Your task to perform on an android device: What's on my calendar today? Image 0: 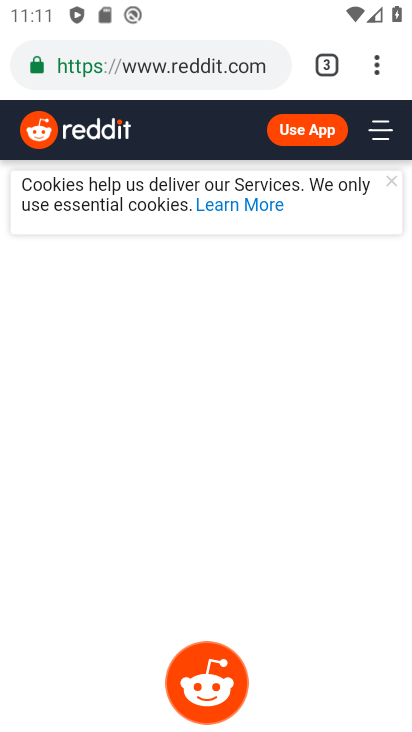
Step 0: press home button
Your task to perform on an android device: What's on my calendar today? Image 1: 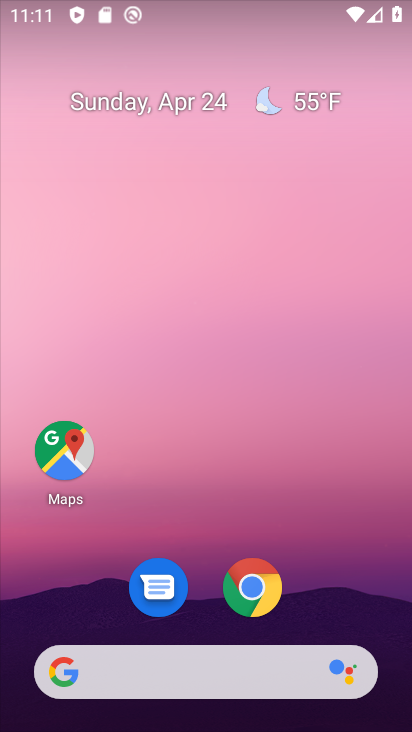
Step 1: drag from (355, 586) to (408, 58)
Your task to perform on an android device: What's on my calendar today? Image 2: 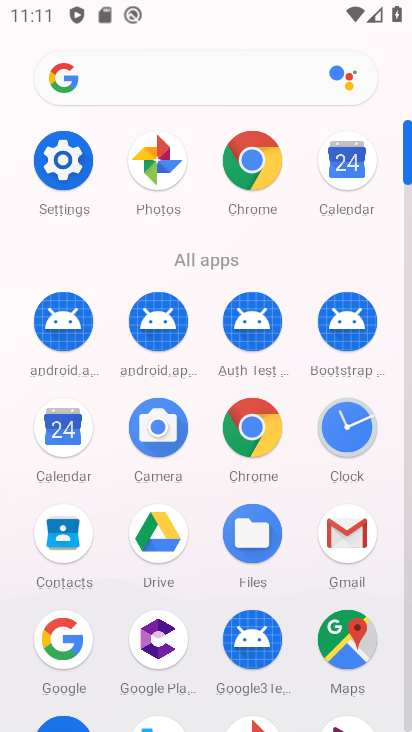
Step 2: click (64, 436)
Your task to perform on an android device: What's on my calendar today? Image 3: 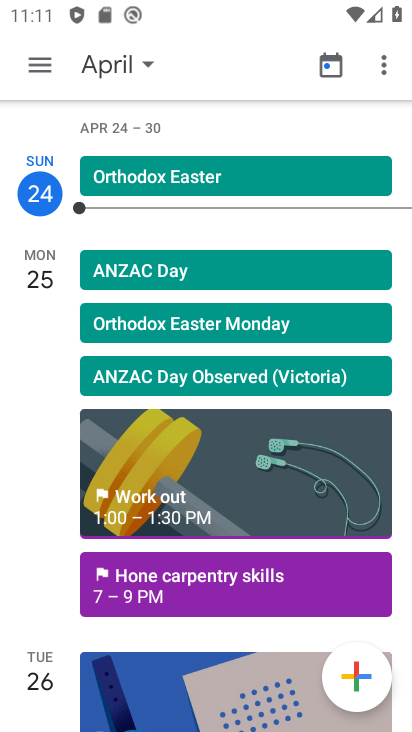
Step 3: click (132, 55)
Your task to perform on an android device: What's on my calendar today? Image 4: 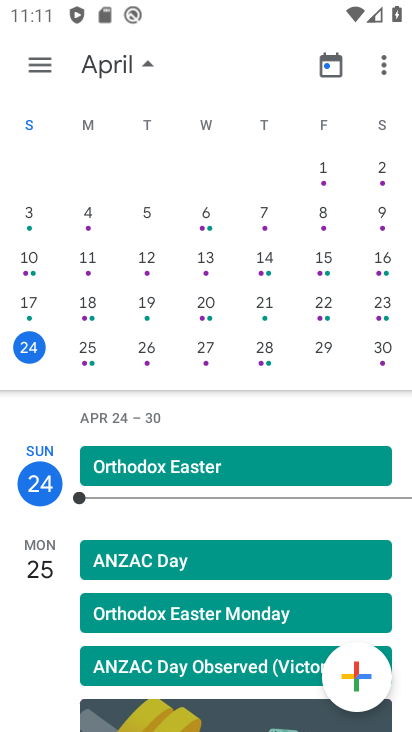
Step 4: task complete